Your task to perform on an android device: find photos in the google photos app Image 0: 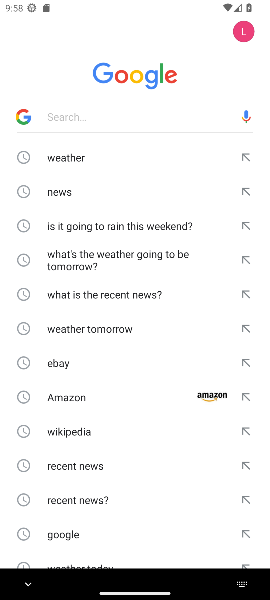
Step 0: press home button
Your task to perform on an android device: find photos in the google photos app Image 1: 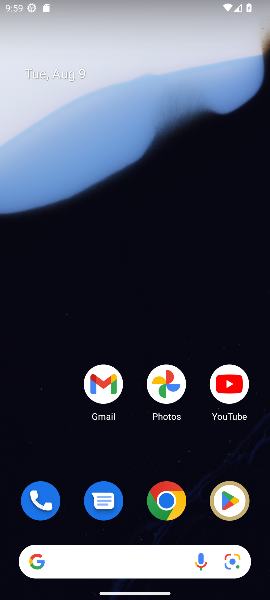
Step 1: click (134, 524)
Your task to perform on an android device: find photos in the google photos app Image 2: 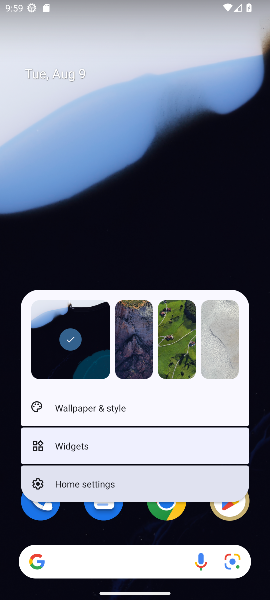
Step 2: click (135, 531)
Your task to perform on an android device: find photos in the google photos app Image 3: 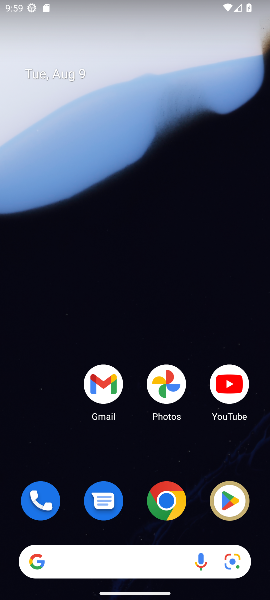
Step 3: click (164, 387)
Your task to perform on an android device: find photos in the google photos app Image 4: 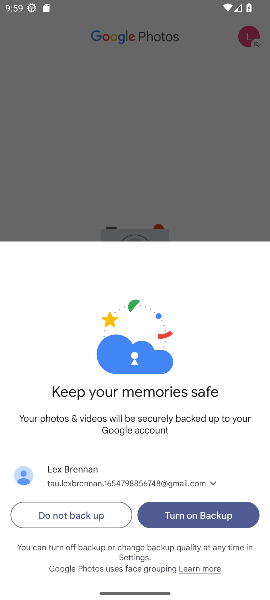
Step 4: click (195, 510)
Your task to perform on an android device: find photos in the google photos app Image 5: 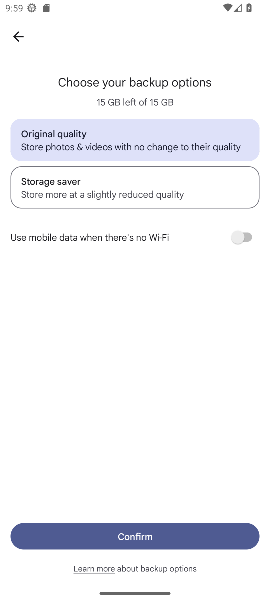
Step 5: click (143, 522)
Your task to perform on an android device: find photos in the google photos app Image 6: 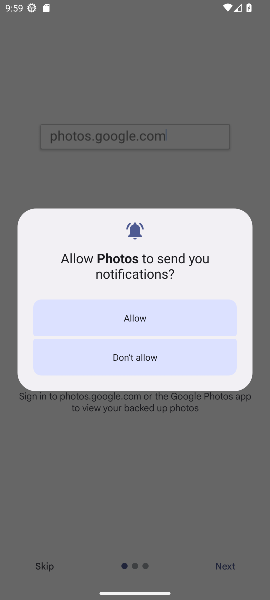
Step 6: click (128, 312)
Your task to perform on an android device: find photos in the google photos app Image 7: 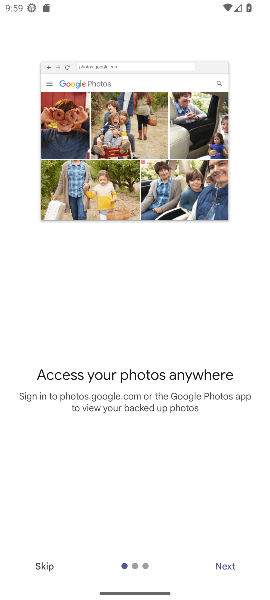
Step 7: click (224, 567)
Your task to perform on an android device: find photos in the google photos app Image 8: 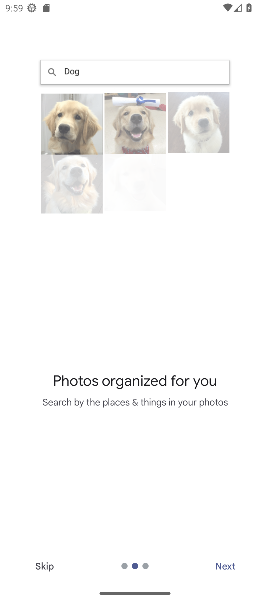
Step 8: click (224, 567)
Your task to perform on an android device: find photos in the google photos app Image 9: 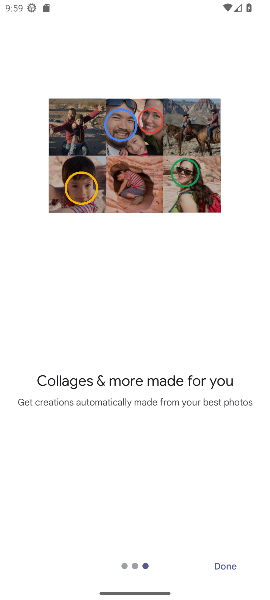
Step 9: click (224, 567)
Your task to perform on an android device: find photos in the google photos app Image 10: 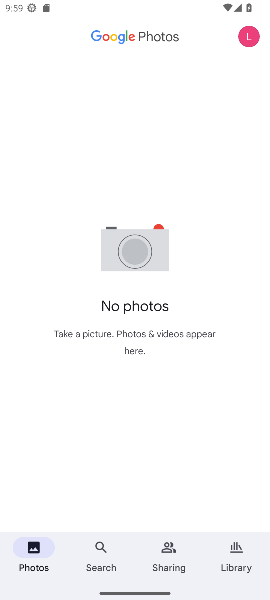
Step 10: task complete